Your task to perform on an android device: change the clock display to show seconds Image 0: 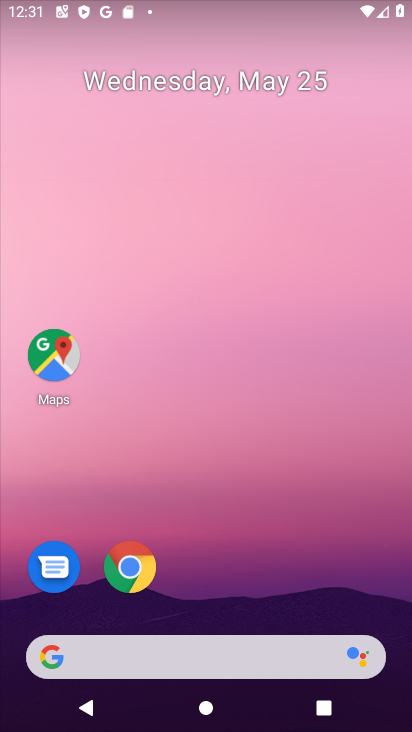
Step 0: drag from (291, 589) to (201, 85)
Your task to perform on an android device: change the clock display to show seconds Image 1: 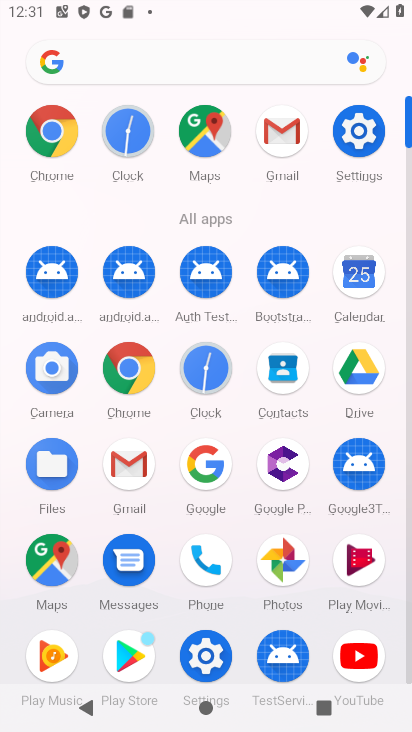
Step 1: click (124, 129)
Your task to perform on an android device: change the clock display to show seconds Image 2: 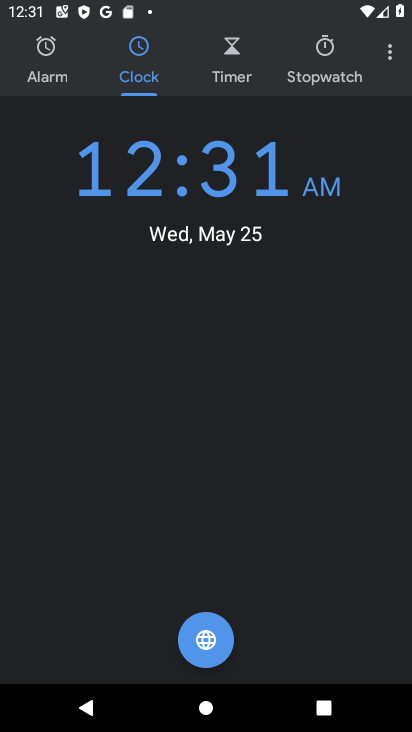
Step 2: click (392, 55)
Your task to perform on an android device: change the clock display to show seconds Image 3: 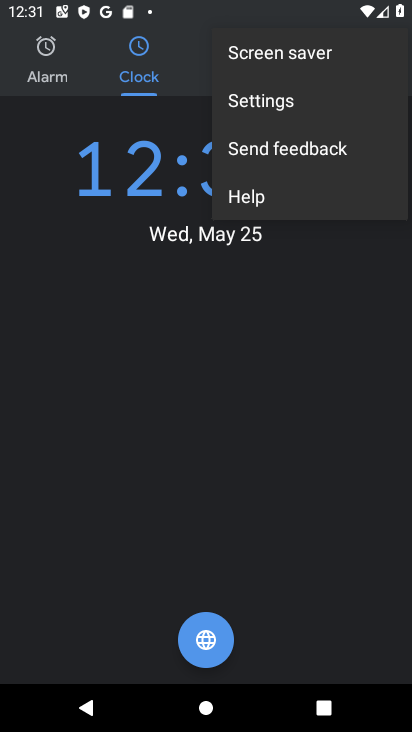
Step 3: click (270, 96)
Your task to perform on an android device: change the clock display to show seconds Image 4: 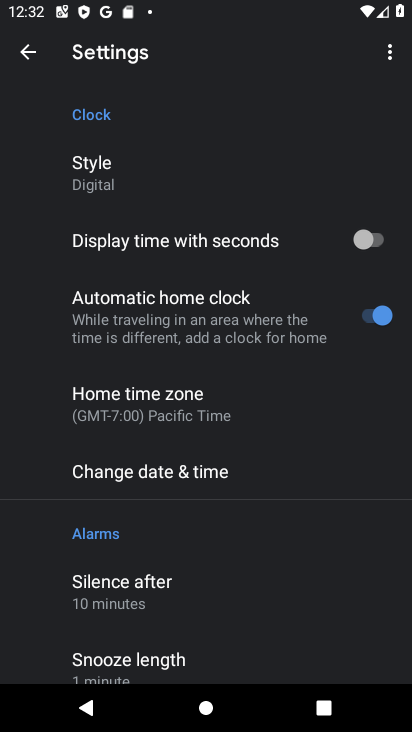
Step 4: click (376, 243)
Your task to perform on an android device: change the clock display to show seconds Image 5: 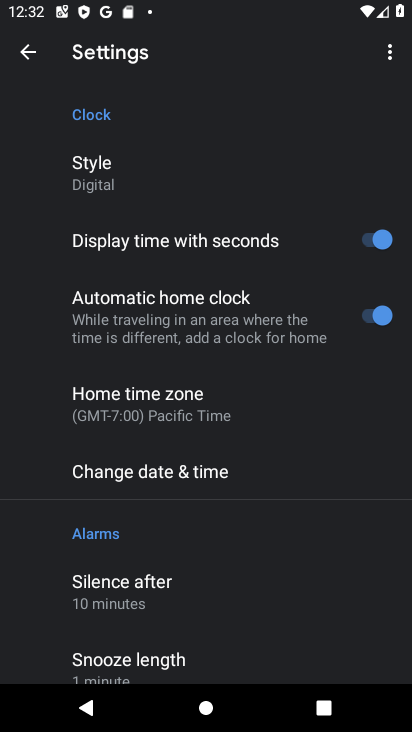
Step 5: task complete